Your task to perform on an android device: check google app version Image 0: 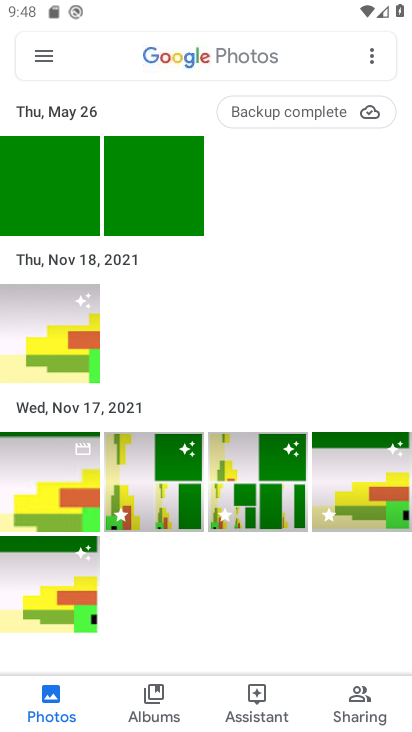
Step 0: press home button
Your task to perform on an android device: check google app version Image 1: 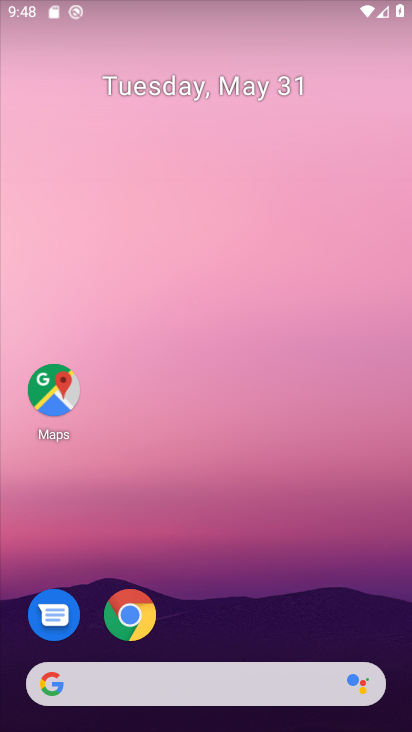
Step 1: drag from (245, 615) to (240, 0)
Your task to perform on an android device: check google app version Image 2: 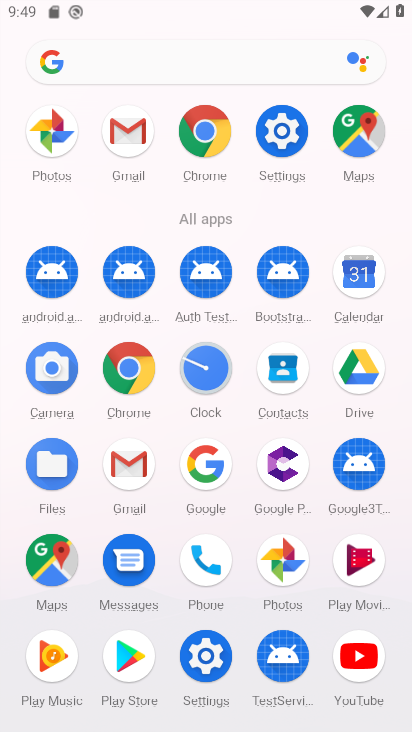
Step 2: click (202, 459)
Your task to perform on an android device: check google app version Image 3: 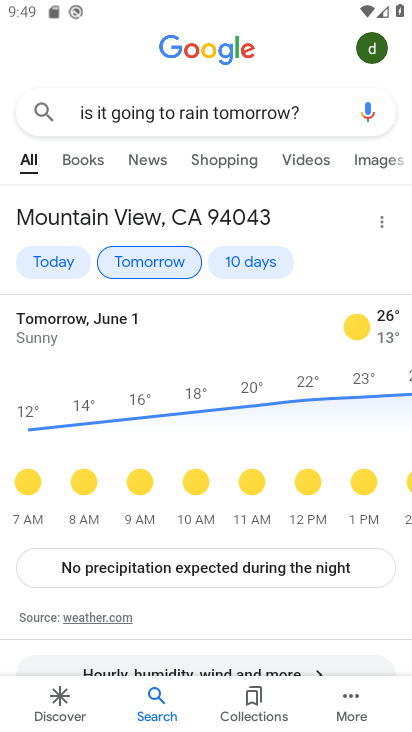
Step 3: click (361, 698)
Your task to perform on an android device: check google app version Image 4: 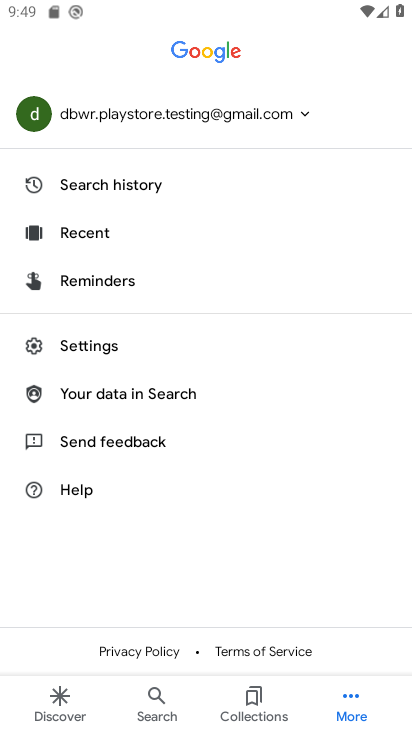
Step 4: click (44, 342)
Your task to perform on an android device: check google app version Image 5: 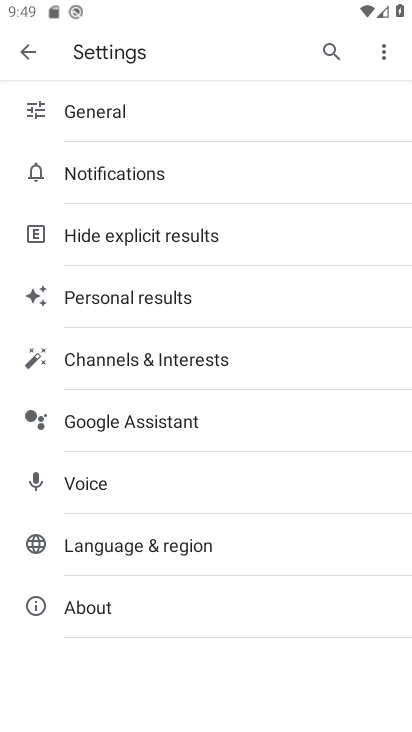
Step 5: click (135, 600)
Your task to perform on an android device: check google app version Image 6: 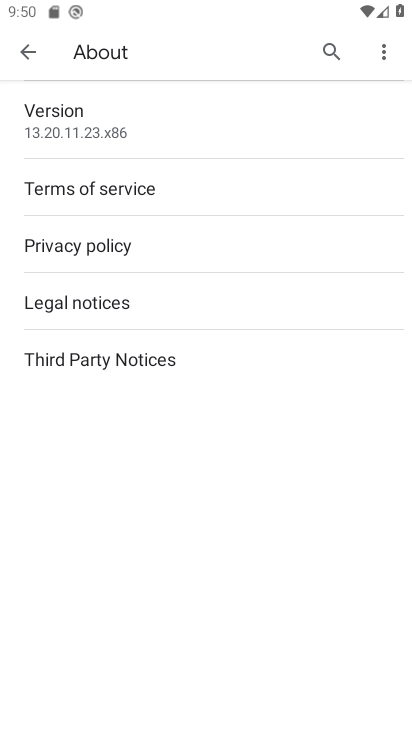
Step 6: click (101, 122)
Your task to perform on an android device: check google app version Image 7: 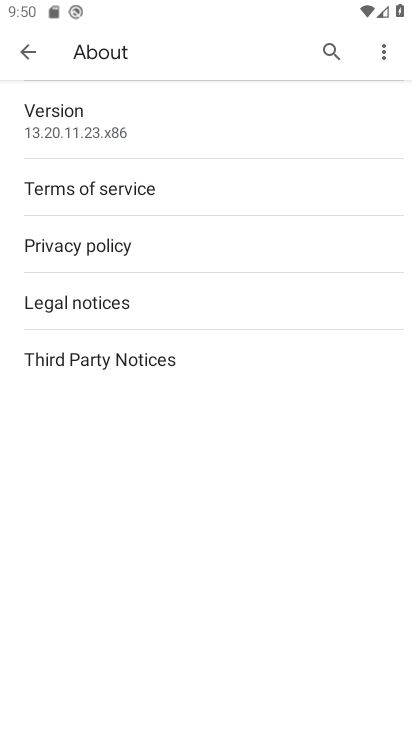
Step 7: task complete